Your task to perform on an android device: change the clock display to show seconds Image 0: 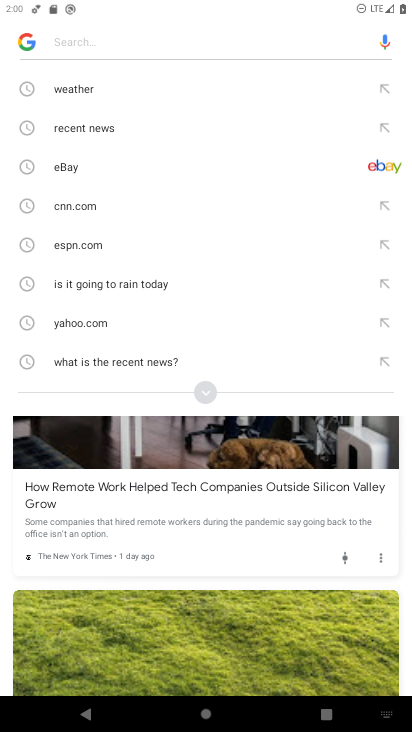
Step 0: press home button
Your task to perform on an android device: change the clock display to show seconds Image 1: 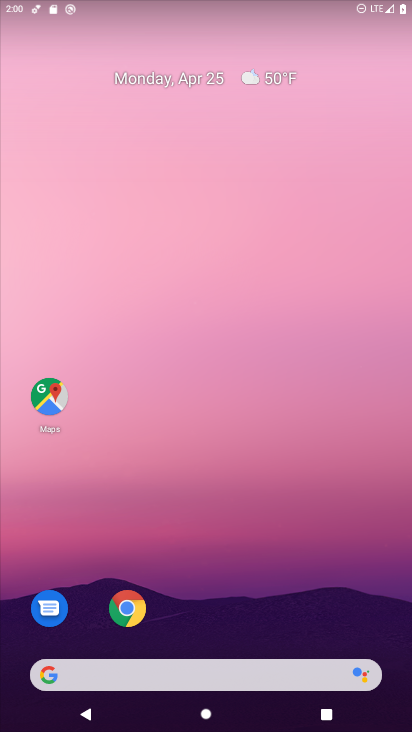
Step 1: drag from (341, 614) to (259, 118)
Your task to perform on an android device: change the clock display to show seconds Image 2: 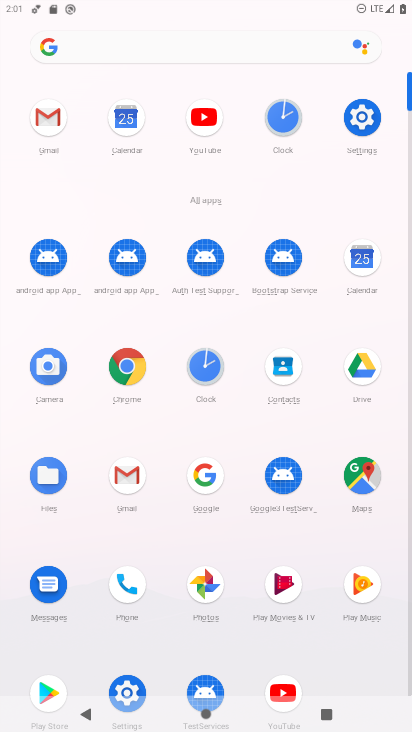
Step 2: click (203, 367)
Your task to perform on an android device: change the clock display to show seconds Image 3: 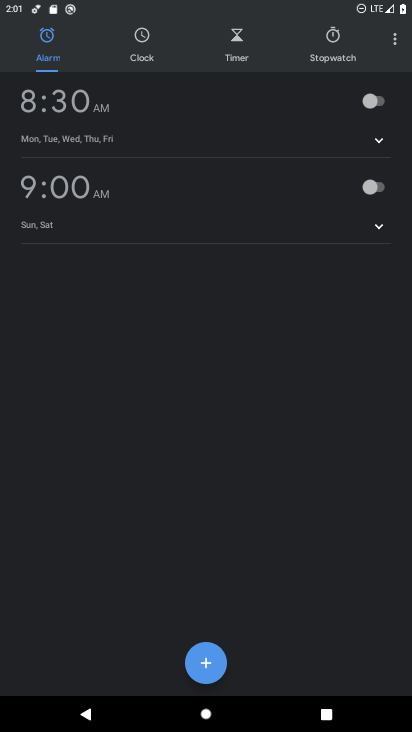
Step 3: click (397, 32)
Your task to perform on an android device: change the clock display to show seconds Image 4: 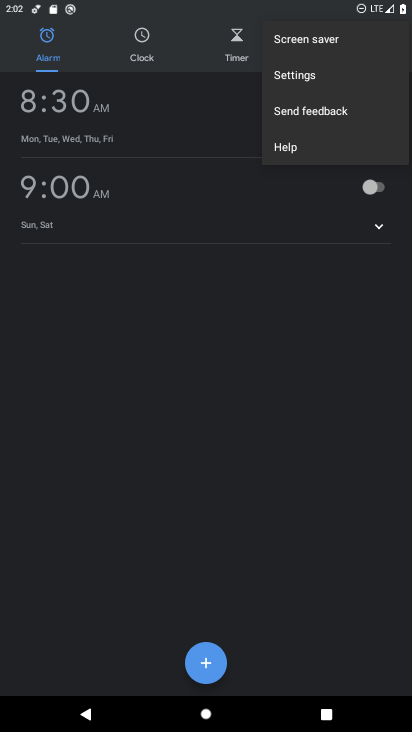
Step 4: click (289, 88)
Your task to perform on an android device: change the clock display to show seconds Image 5: 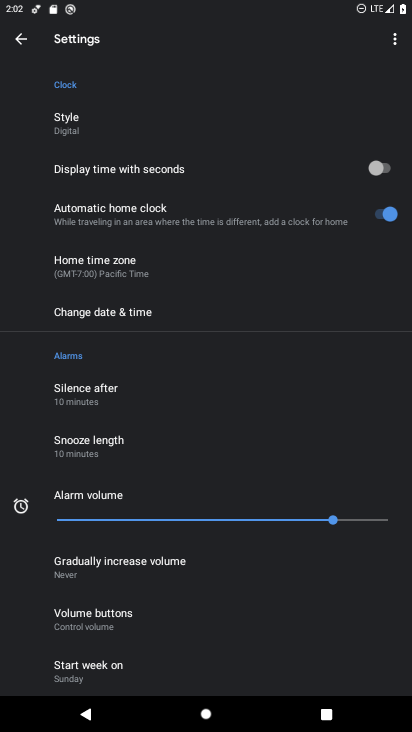
Step 5: click (378, 171)
Your task to perform on an android device: change the clock display to show seconds Image 6: 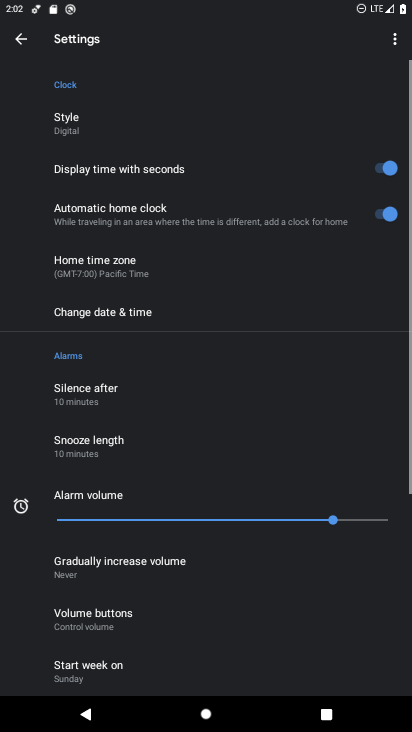
Step 6: task complete